Your task to perform on an android device: check out phone information Image 0: 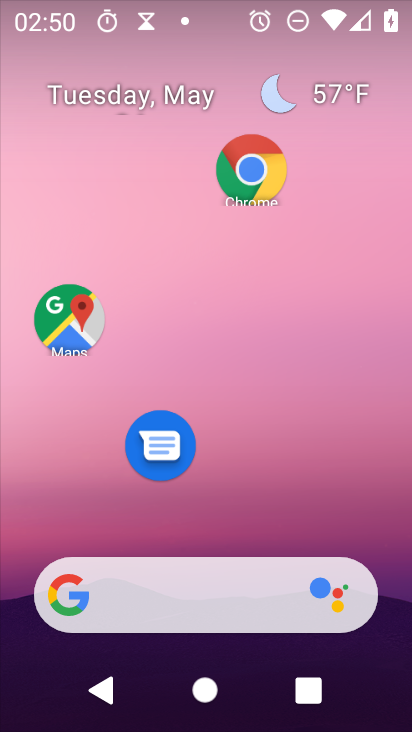
Step 0: drag from (228, 726) to (220, 213)
Your task to perform on an android device: check out phone information Image 1: 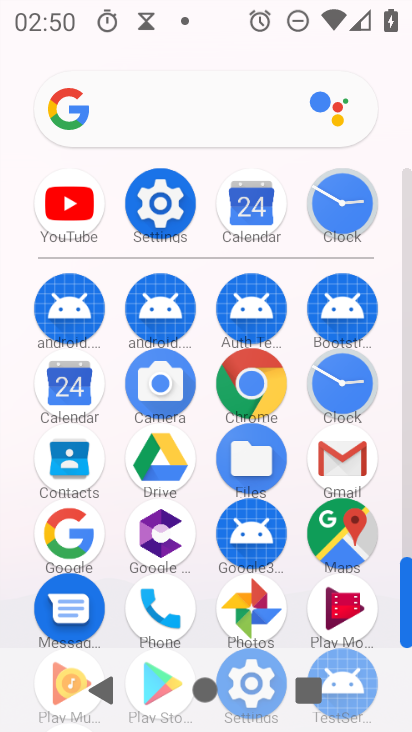
Step 1: click (166, 205)
Your task to perform on an android device: check out phone information Image 2: 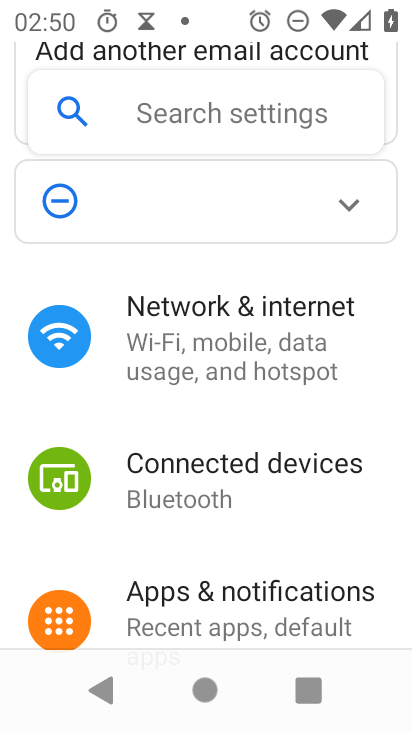
Step 2: drag from (225, 618) to (247, 254)
Your task to perform on an android device: check out phone information Image 3: 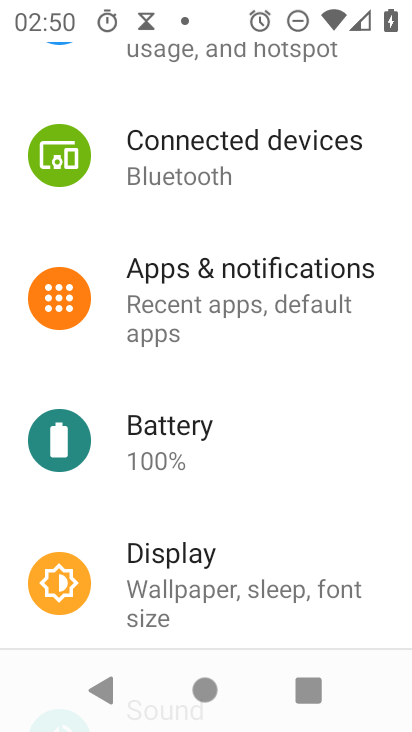
Step 3: drag from (240, 611) to (255, 200)
Your task to perform on an android device: check out phone information Image 4: 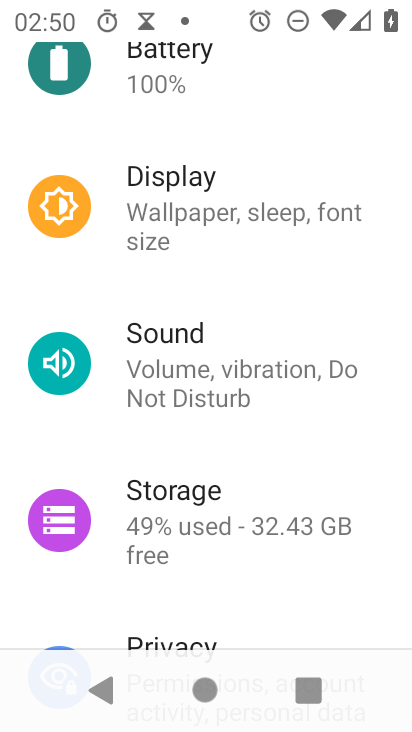
Step 4: drag from (241, 613) to (241, 215)
Your task to perform on an android device: check out phone information Image 5: 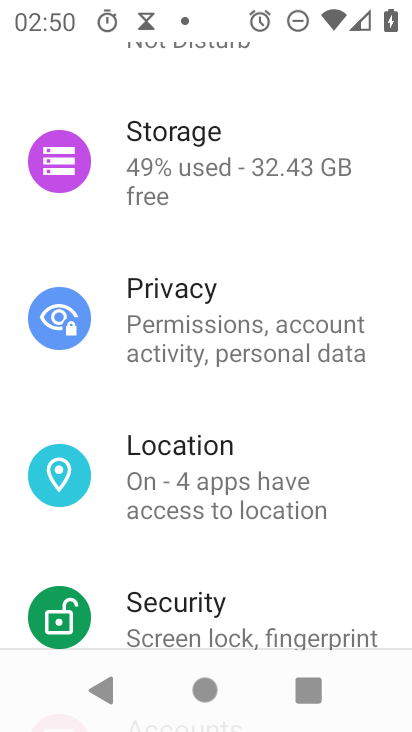
Step 5: drag from (243, 603) to (253, 184)
Your task to perform on an android device: check out phone information Image 6: 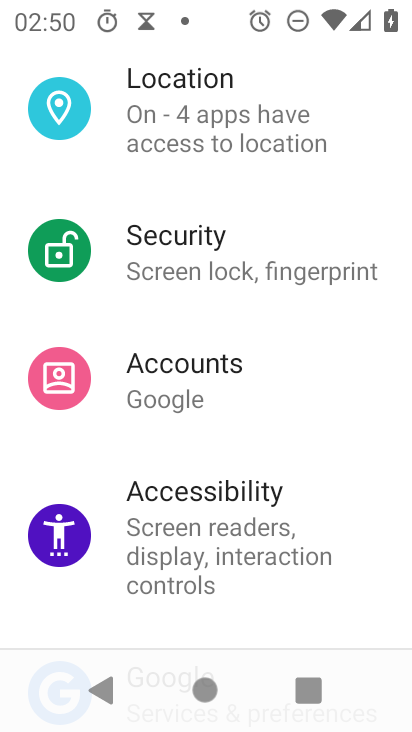
Step 6: drag from (227, 630) to (244, 101)
Your task to perform on an android device: check out phone information Image 7: 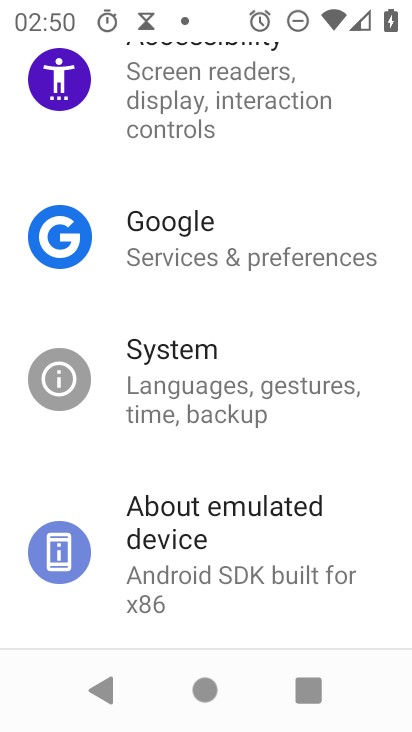
Step 7: drag from (214, 615) to (228, 132)
Your task to perform on an android device: check out phone information Image 8: 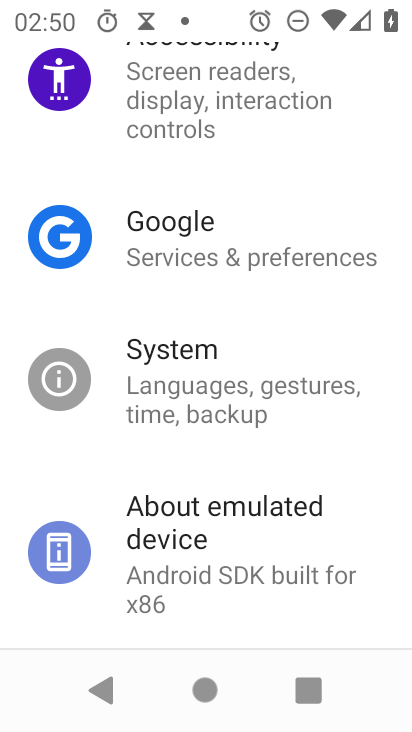
Step 8: click (194, 531)
Your task to perform on an android device: check out phone information Image 9: 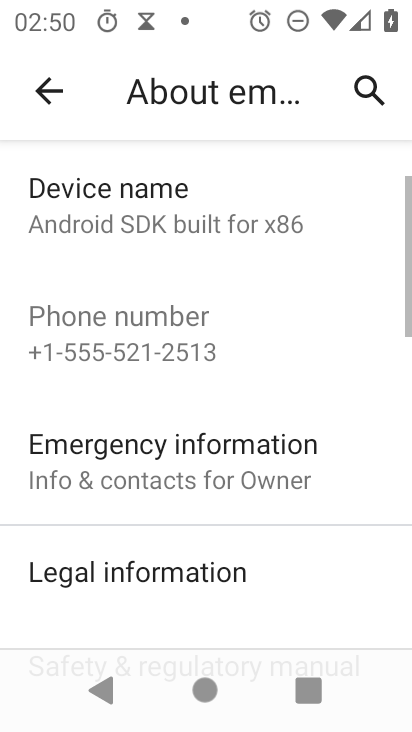
Step 9: task complete